Your task to perform on an android device: set the stopwatch Image 0: 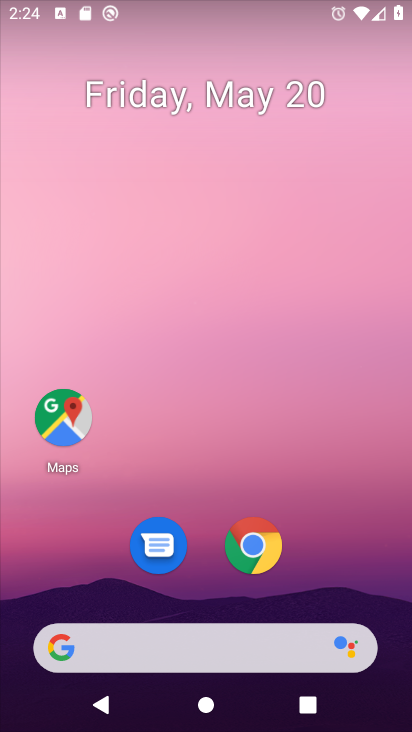
Step 0: drag from (219, 617) to (223, 42)
Your task to perform on an android device: set the stopwatch Image 1: 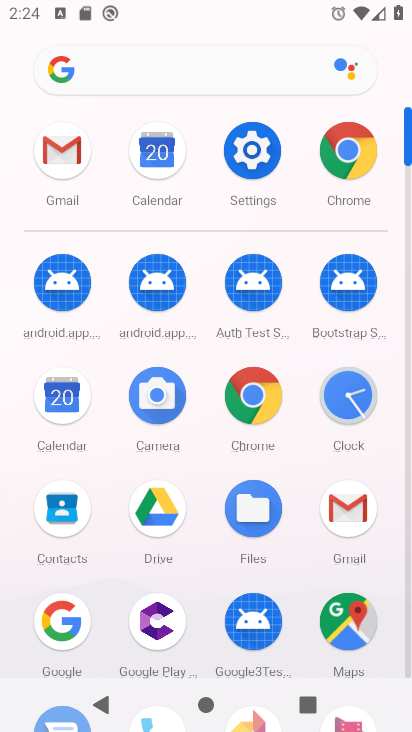
Step 1: click (351, 408)
Your task to perform on an android device: set the stopwatch Image 2: 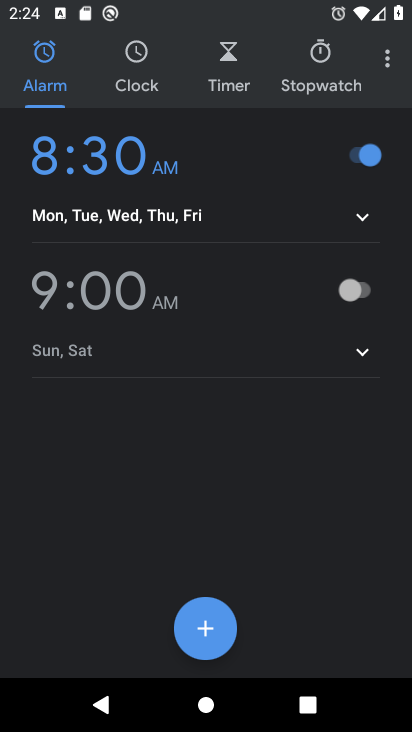
Step 2: click (318, 57)
Your task to perform on an android device: set the stopwatch Image 3: 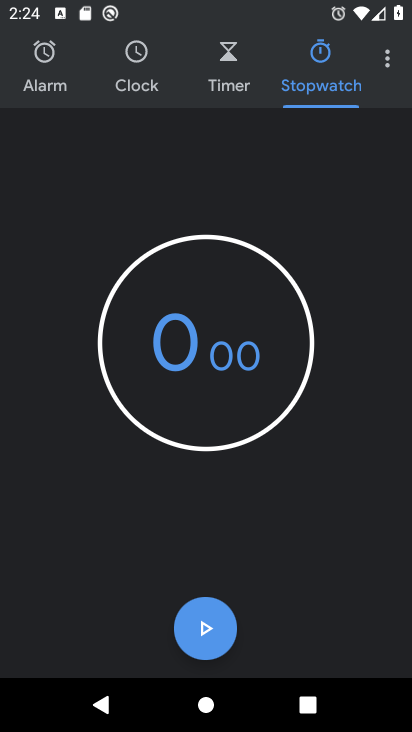
Step 3: click (221, 632)
Your task to perform on an android device: set the stopwatch Image 4: 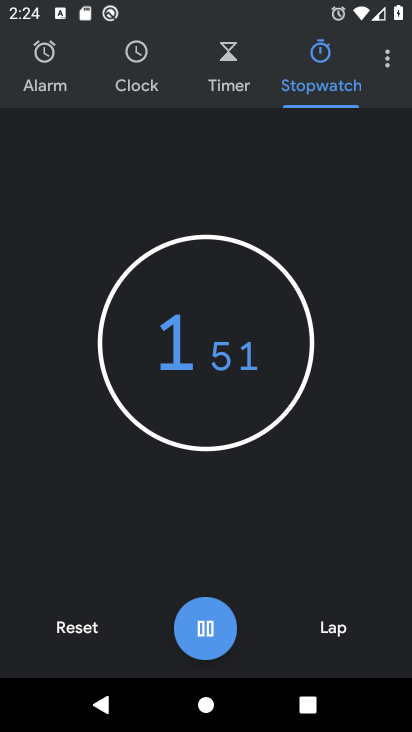
Step 4: task complete